Your task to perform on an android device: check the backup settings in the google photos Image 0: 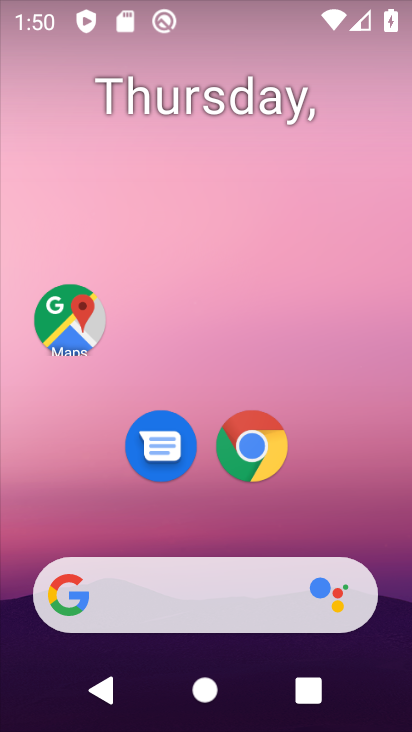
Step 0: drag from (336, 463) to (329, 225)
Your task to perform on an android device: check the backup settings in the google photos Image 1: 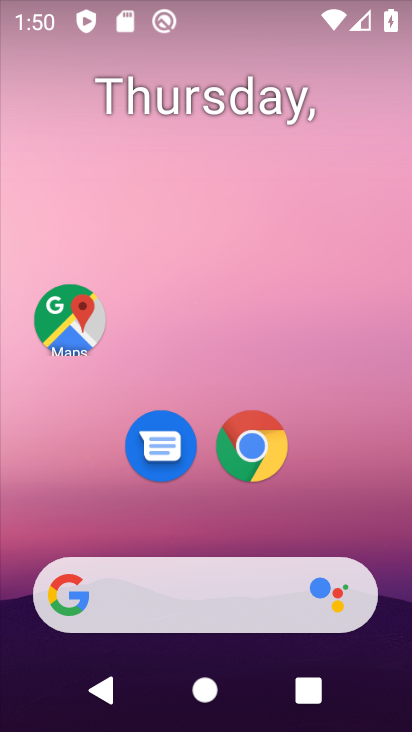
Step 1: click (219, 227)
Your task to perform on an android device: check the backup settings in the google photos Image 2: 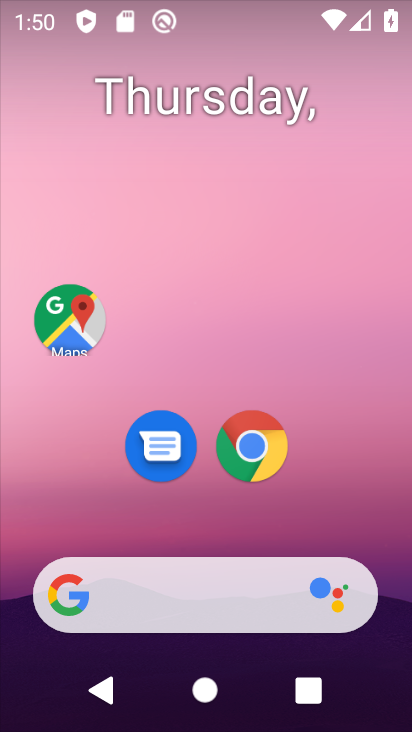
Step 2: drag from (228, 449) to (203, 155)
Your task to perform on an android device: check the backup settings in the google photos Image 3: 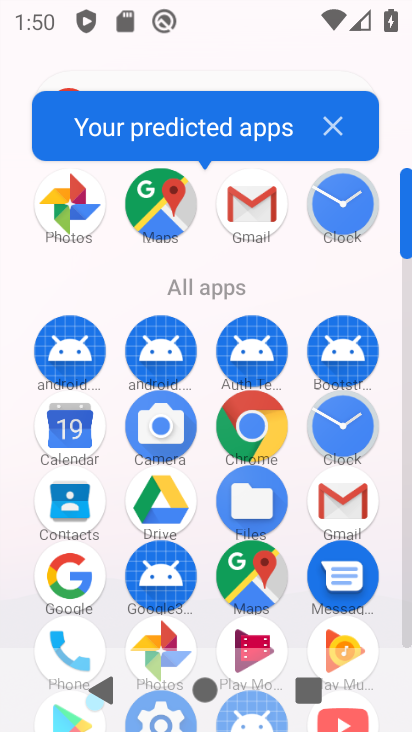
Step 3: drag from (211, 578) to (222, 416)
Your task to perform on an android device: check the backup settings in the google photos Image 4: 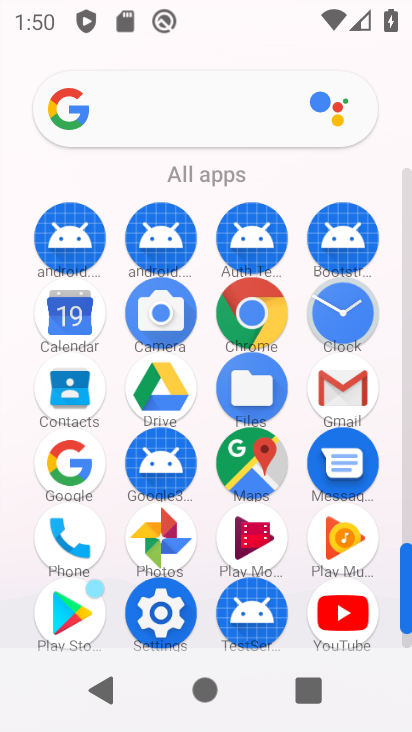
Step 4: click (161, 542)
Your task to perform on an android device: check the backup settings in the google photos Image 5: 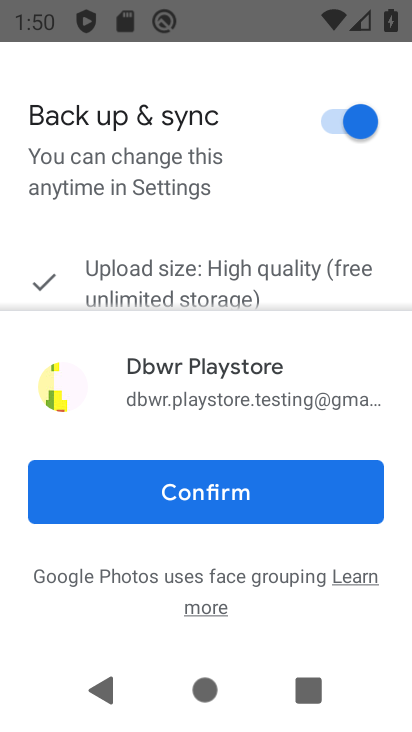
Step 5: click (40, 86)
Your task to perform on an android device: check the backup settings in the google photos Image 6: 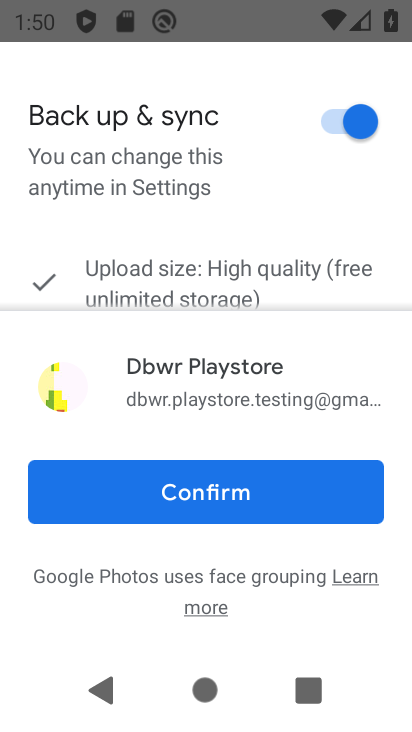
Step 6: click (182, 494)
Your task to perform on an android device: check the backup settings in the google photos Image 7: 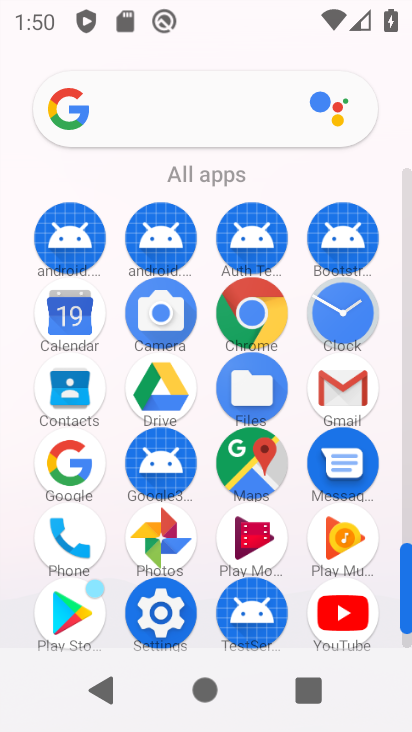
Step 7: click (170, 530)
Your task to perform on an android device: check the backup settings in the google photos Image 8: 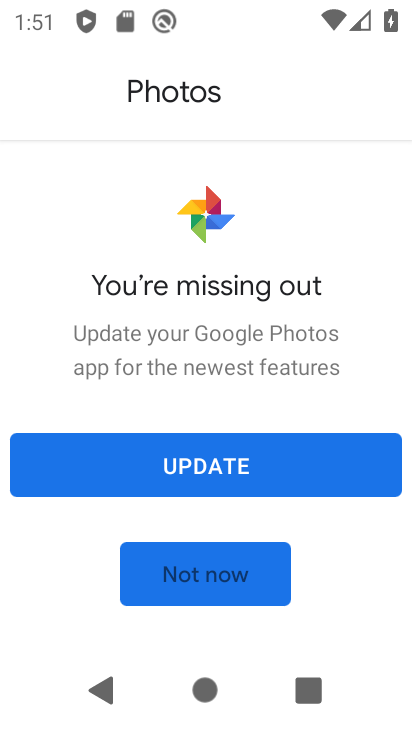
Step 8: click (212, 596)
Your task to perform on an android device: check the backup settings in the google photos Image 9: 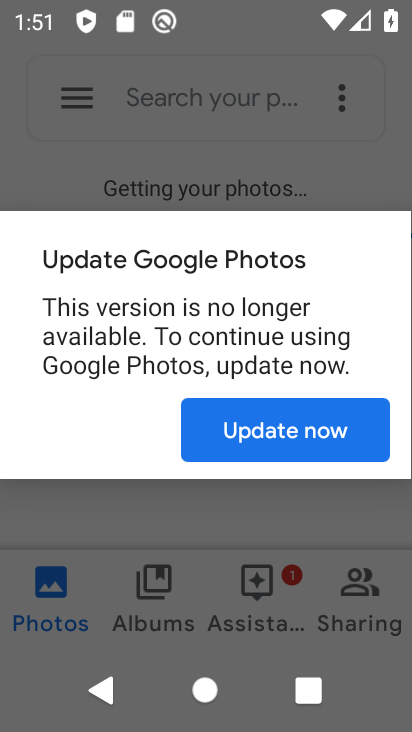
Step 9: click (229, 437)
Your task to perform on an android device: check the backup settings in the google photos Image 10: 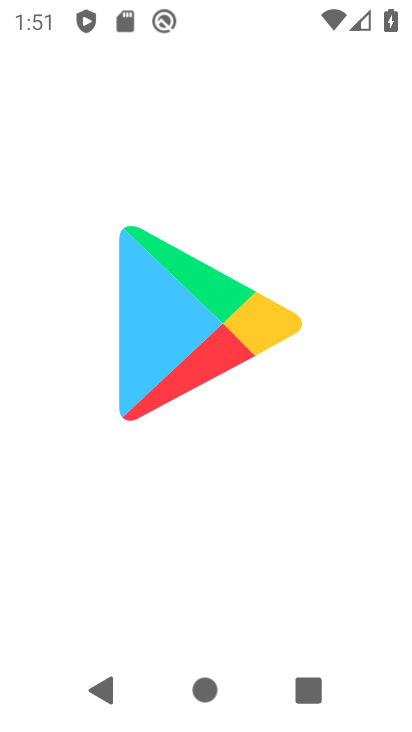
Step 10: press back button
Your task to perform on an android device: check the backup settings in the google photos Image 11: 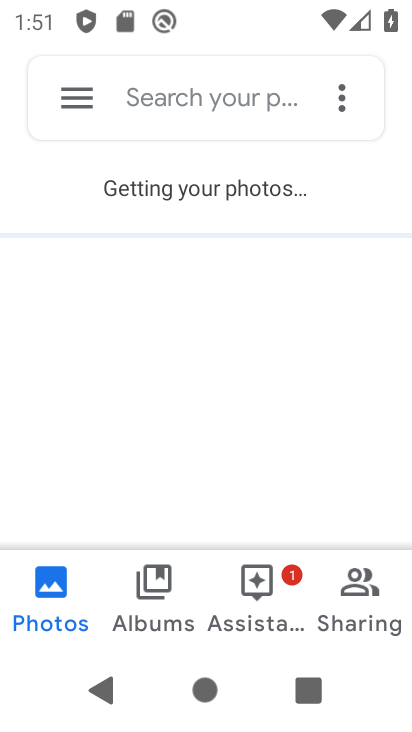
Step 11: click (79, 81)
Your task to perform on an android device: check the backup settings in the google photos Image 12: 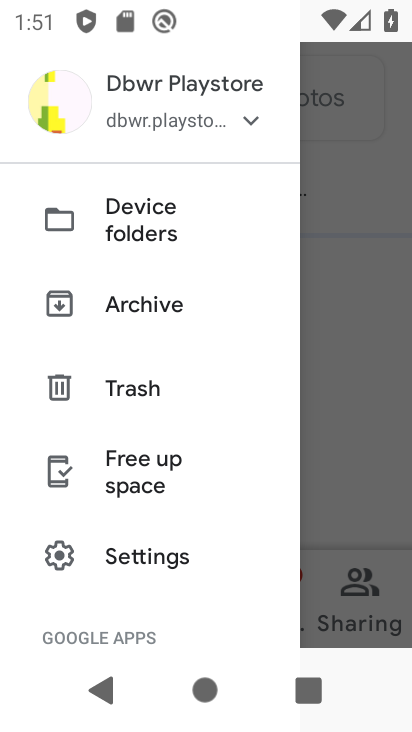
Step 12: click (161, 534)
Your task to perform on an android device: check the backup settings in the google photos Image 13: 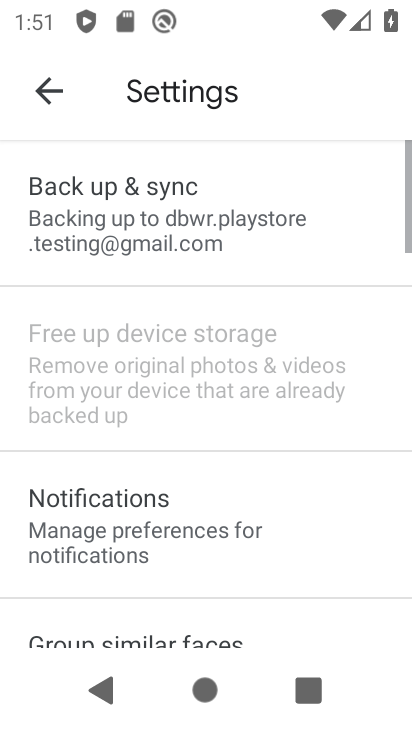
Step 13: click (100, 183)
Your task to perform on an android device: check the backup settings in the google photos Image 14: 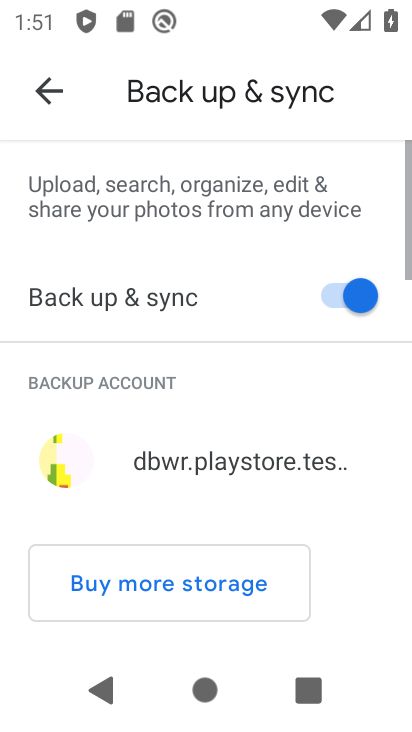
Step 14: task complete